Your task to perform on an android device: change the clock style Image 0: 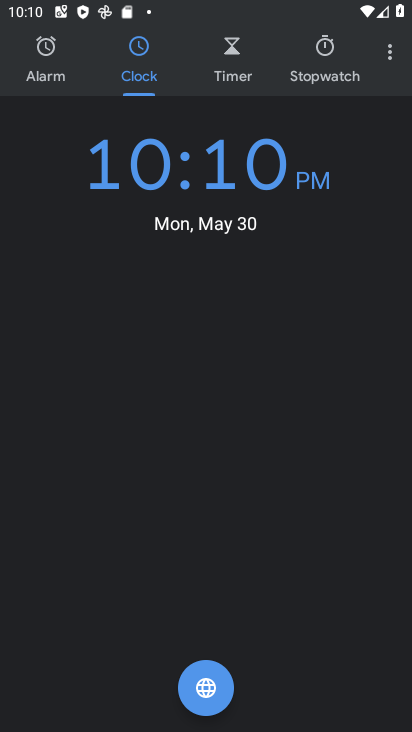
Step 0: click (392, 48)
Your task to perform on an android device: change the clock style Image 1: 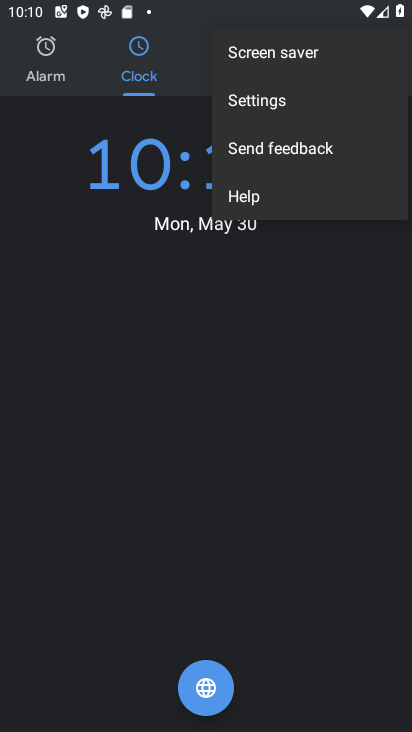
Step 1: click (289, 105)
Your task to perform on an android device: change the clock style Image 2: 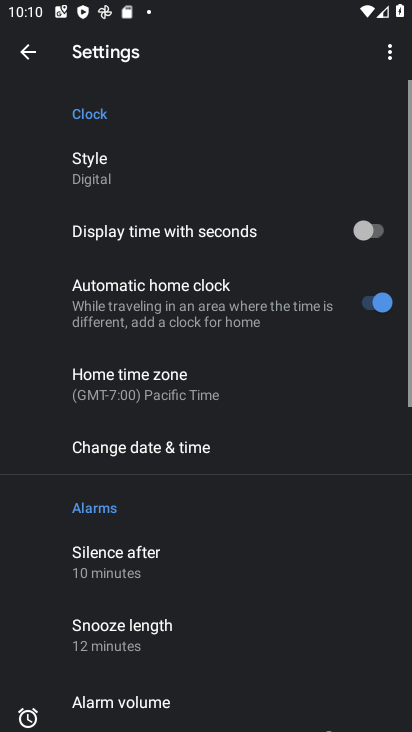
Step 2: click (107, 161)
Your task to perform on an android device: change the clock style Image 3: 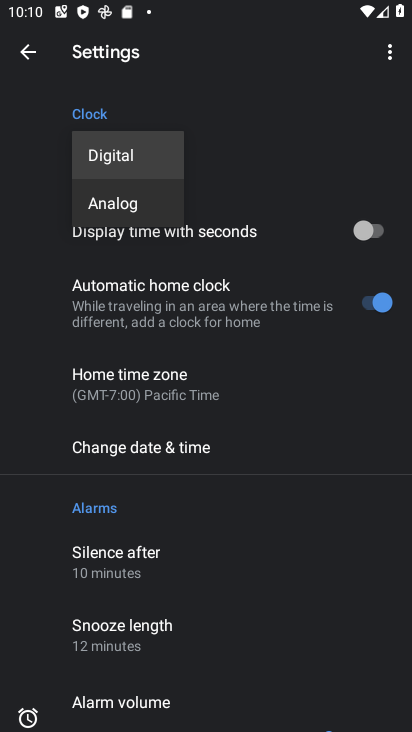
Step 3: click (122, 195)
Your task to perform on an android device: change the clock style Image 4: 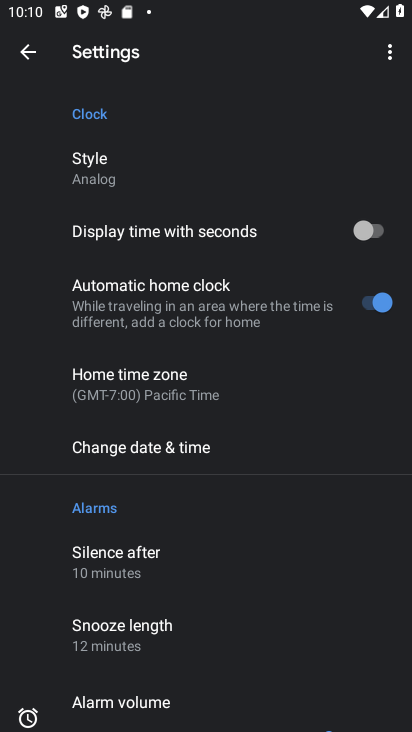
Step 4: task complete